Your task to perform on an android device: open the mobile data screen to see how much data has been used Image 0: 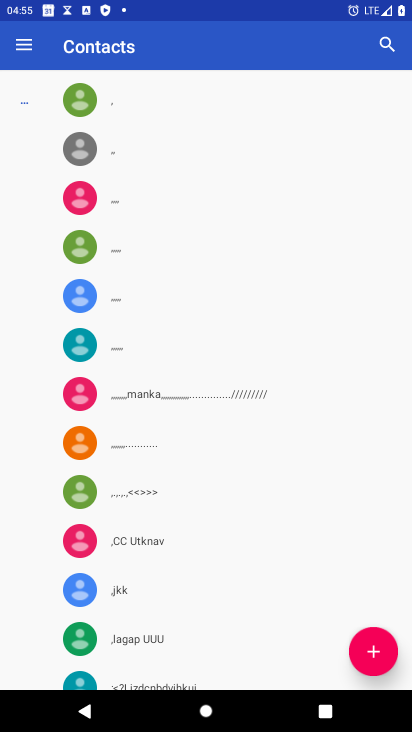
Step 0: press home button
Your task to perform on an android device: open the mobile data screen to see how much data has been used Image 1: 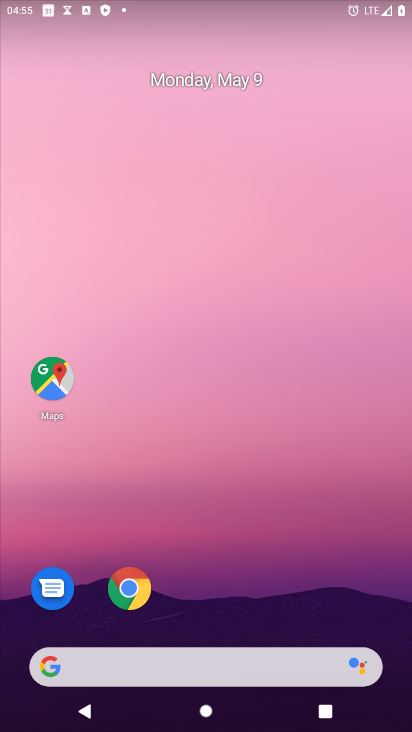
Step 1: drag from (255, 572) to (229, 40)
Your task to perform on an android device: open the mobile data screen to see how much data has been used Image 2: 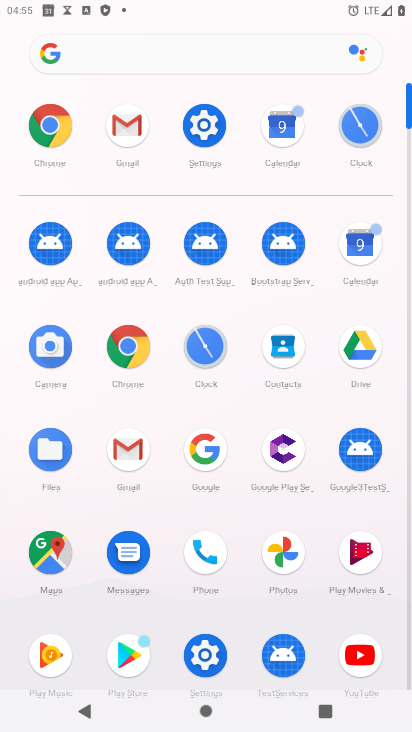
Step 2: click (197, 126)
Your task to perform on an android device: open the mobile data screen to see how much data has been used Image 3: 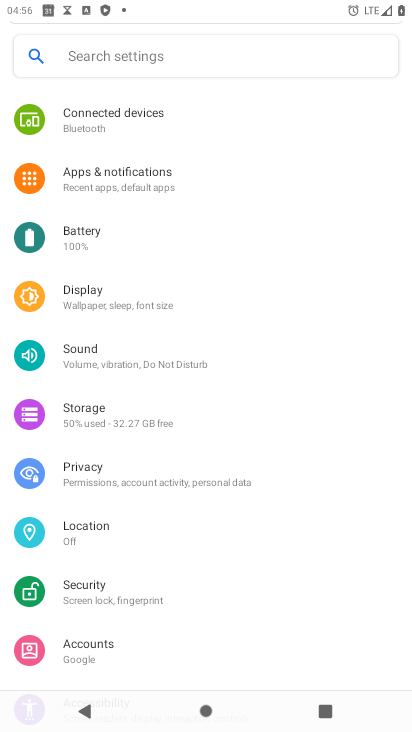
Step 3: drag from (203, 166) to (198, 607)
Your task to perform on an android device: open the mobile data screen to see how much data has been used Image 4: 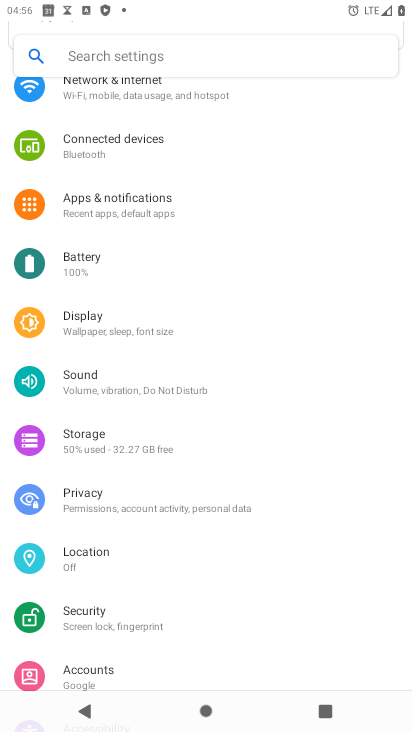
Step 4: click (160, 96)
Your task to perform on an android device: open the mobile data screen to see how much data has been used Image 5: 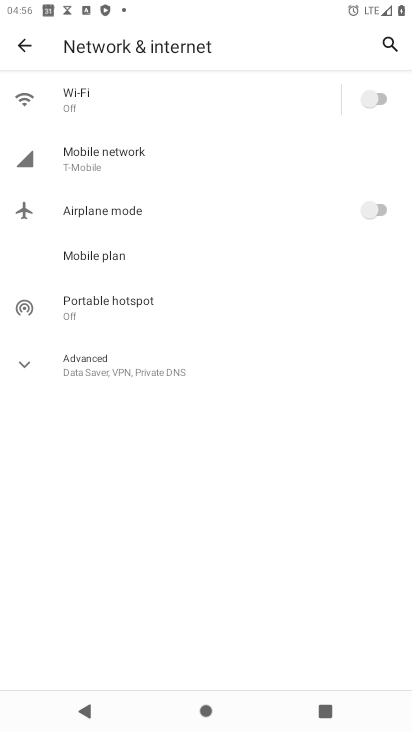
Step 5: click (166, 164)
Your task to perform on an android device: open the mobile data screen to see how much data has been used Image 6: 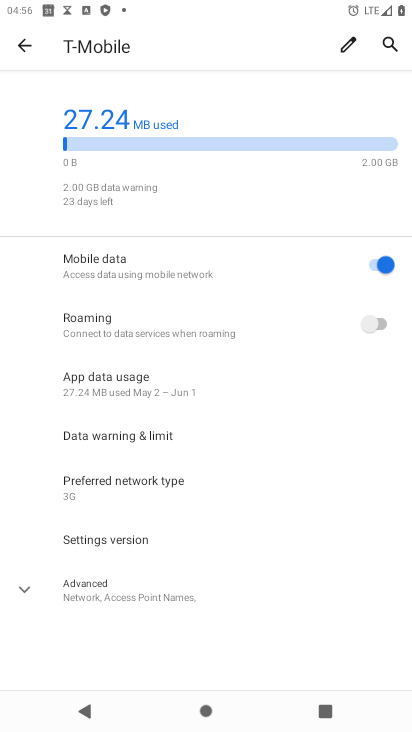
Step 6: task complete